Your task to perform on an android device: add a contact in the contacts app Image 0: 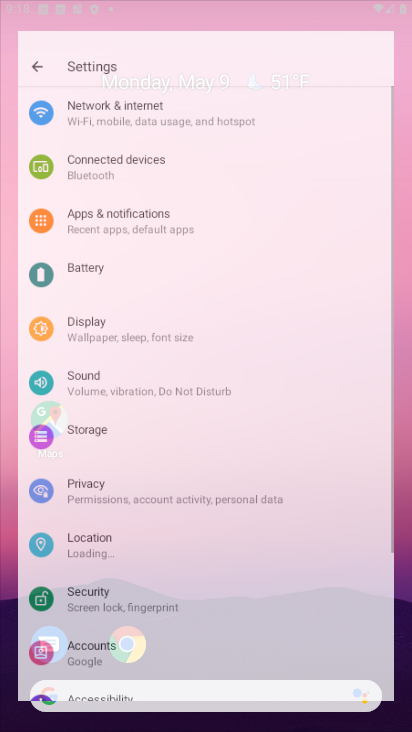
Step 0: drag from (206, 674) to (148, 154)
Your task to perform on an android device: add a contact in the contacts app Image 1: 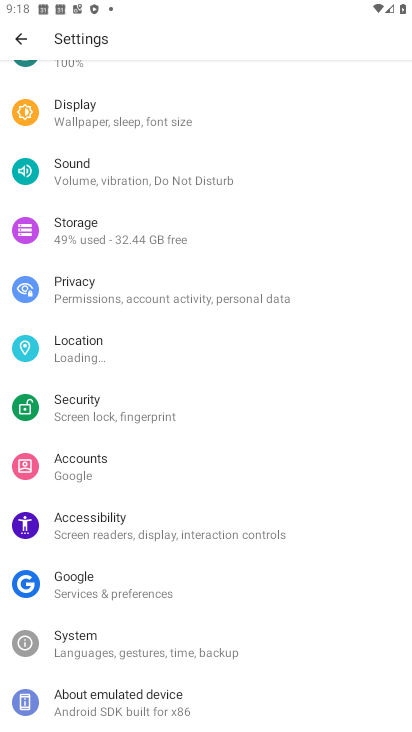
Step 1: press home button
Your task to perform on an android device: add a contact in the contacts app Image 2: 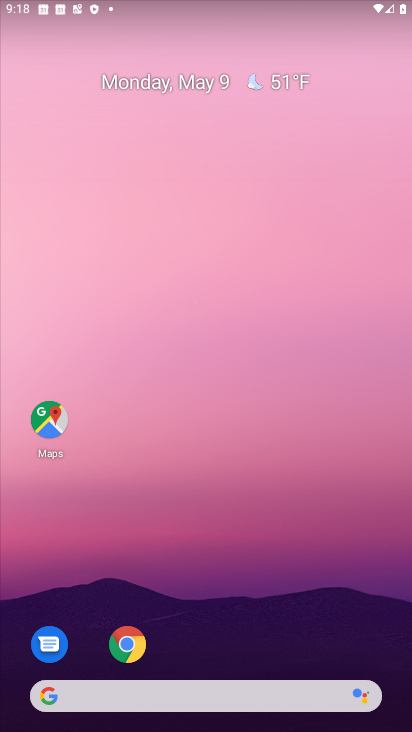
Step 2: drag from (217, 669) to (173, 43)
Your task to perform on an android device: add a contact in the contacts app Image 3: 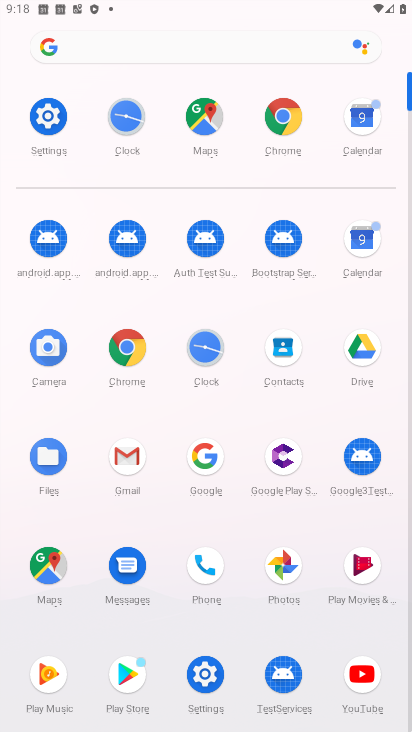
Step 3: click (208, 569)
Your task to perform on an android device: add a contact in the contacts app Image 4: 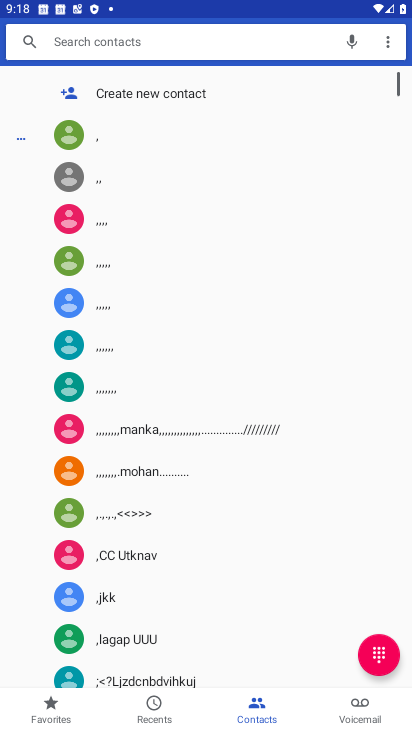
Step 4: click (137, 87)
Your task to perform on an android device: add a contact in the contacts app Image 5: 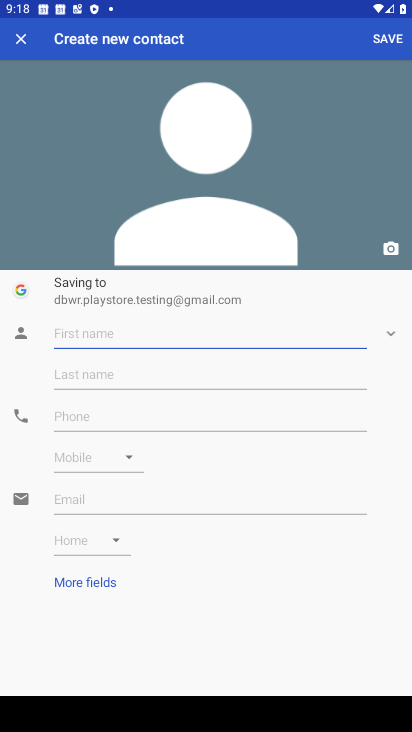
Step 5: type "bit"
Your task to perform on an android device: add a contact in the contacts app Image 6: 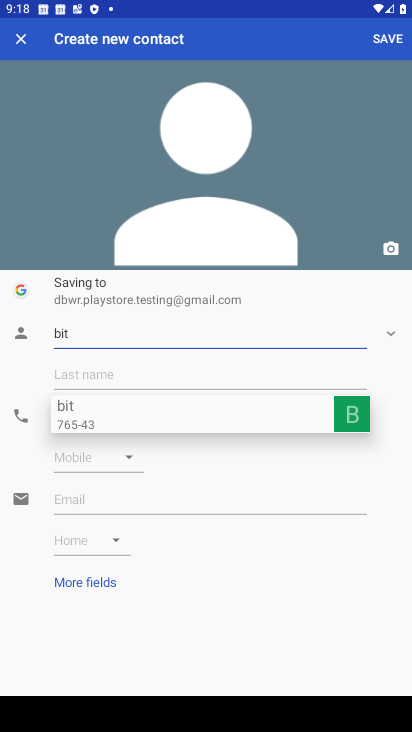
Step 6: click (186, 420)
Your task to perform on an android device: add a contact in the contacts app Image 7: 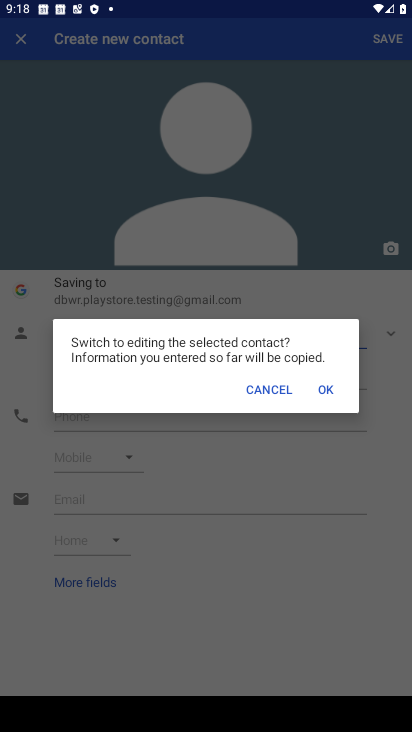
Step 7: click (398, 50)
Your task to perform on an android device: add a contact in the contacts app Image 8: 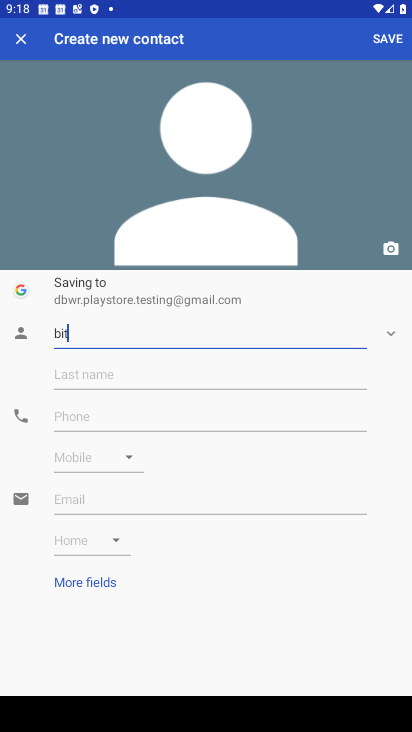
Step 8: click (373, 32)
Your task to perform on an android device: add a contact in the contacts app Image 9: 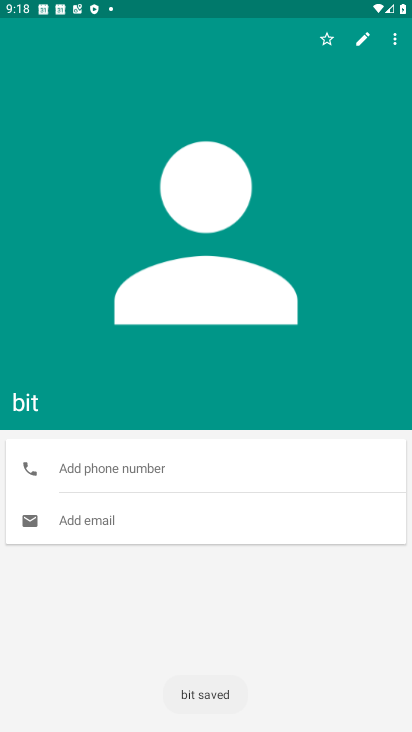
Step 9: task complete